Your task to perform on an android device: Open ESPN.com Image 0: 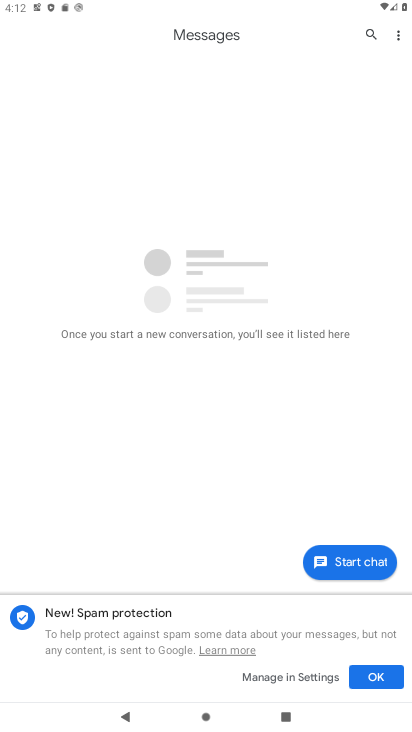
Step 0: press home button
Your task to perform on an android device: Open ESPN.com Image 1: 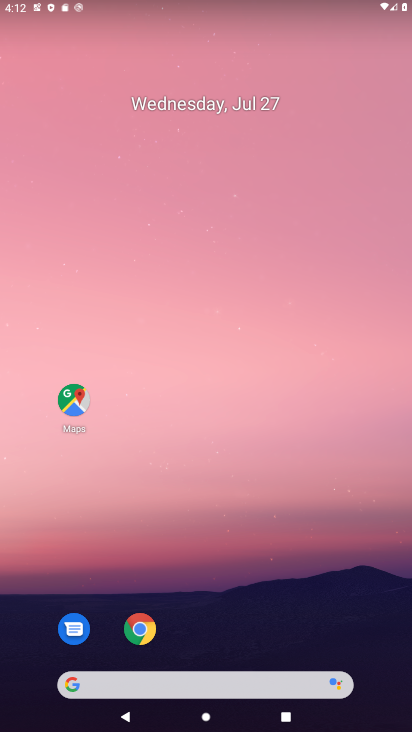
Step 1: drag from (231, 658) to (160, 66)
Your task to perform on an android device: Open ESPN.com Image 2: 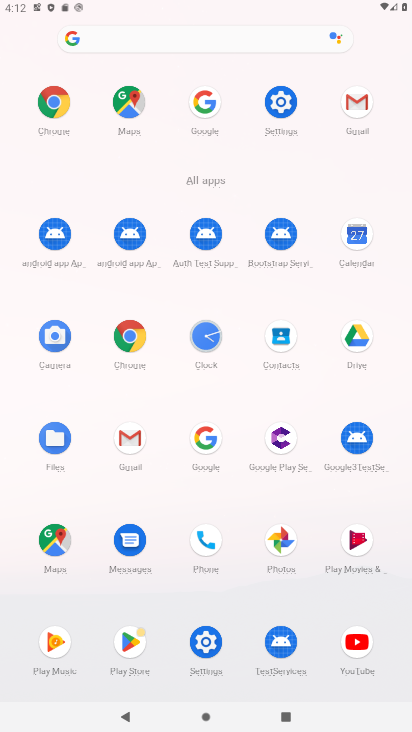
Step 2: click (128, 347)
Your task to perform on an android device: Open ESPN.com Image 3: 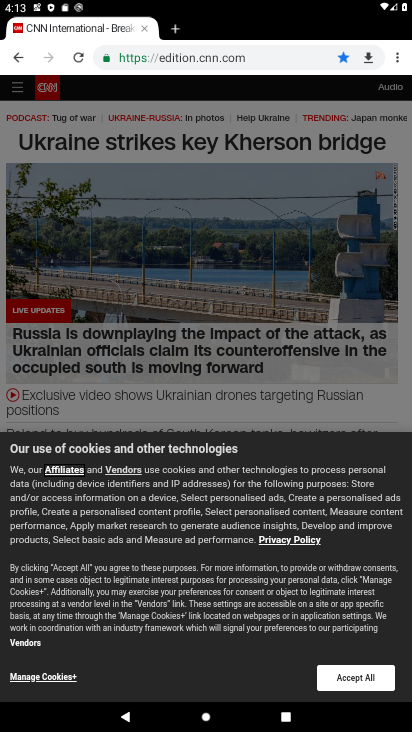
Step 3: click (174, 24)
Your task to perform on an android device: Open ESPN.com Image 4: 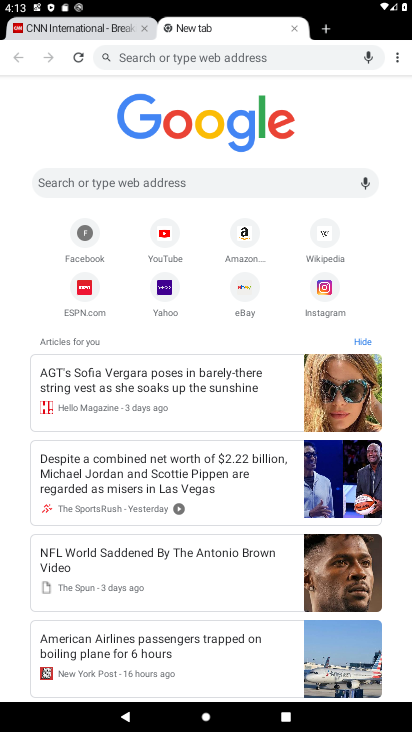
Step 4: click (90, 273)
Your task to perform on an android device: Open ESPN.com Image 5: 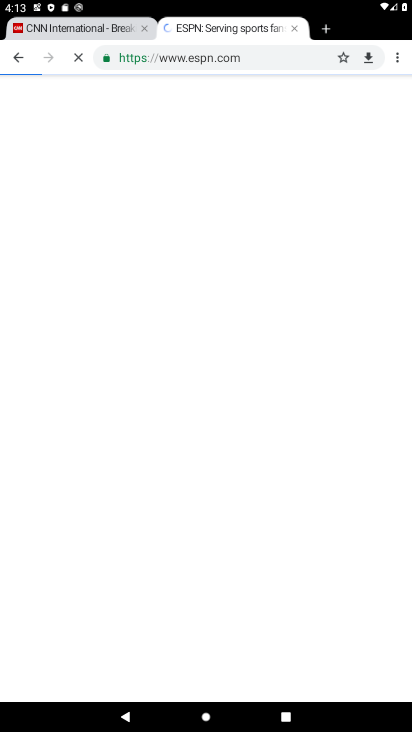
Step 5: task complete